Your task to perform on an android device: open wifi settings Image 0: 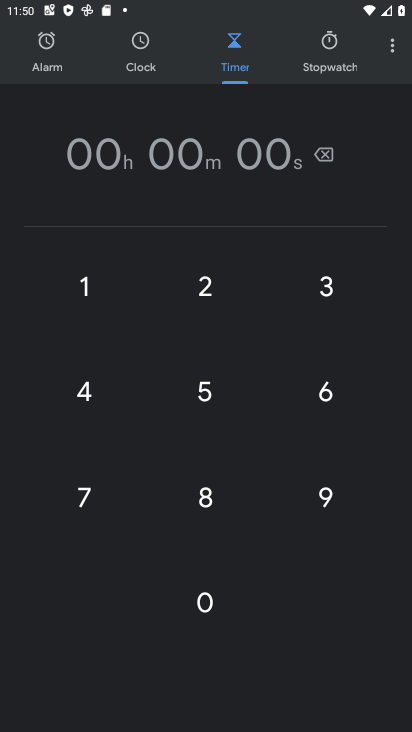
Step 0: press home button
Your task to perform on an android device: open wifi settings Image 1: 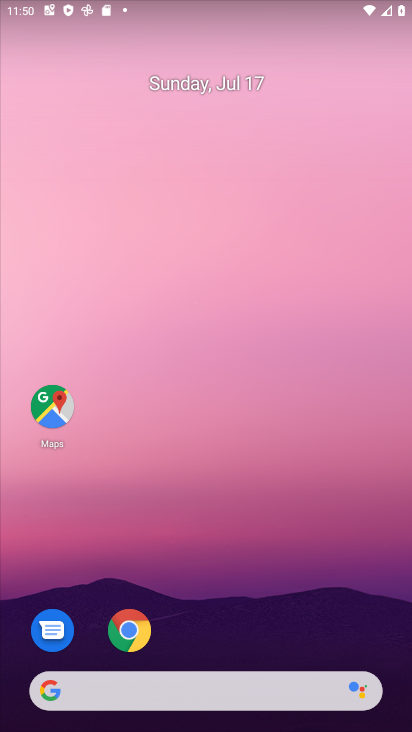
Step 1: drag from (282, 625) to (292, 14)
Your task to perform on an android device: open wifi settings Image 2: 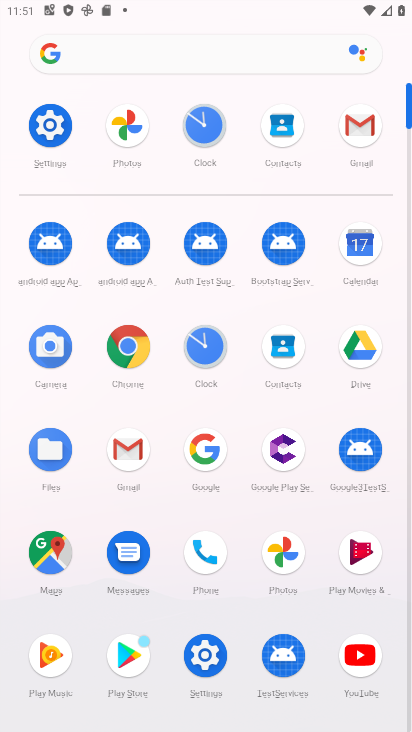
Step 2: click (41, 104)
Your task to perform on an android device: open wifi settings Image 3: 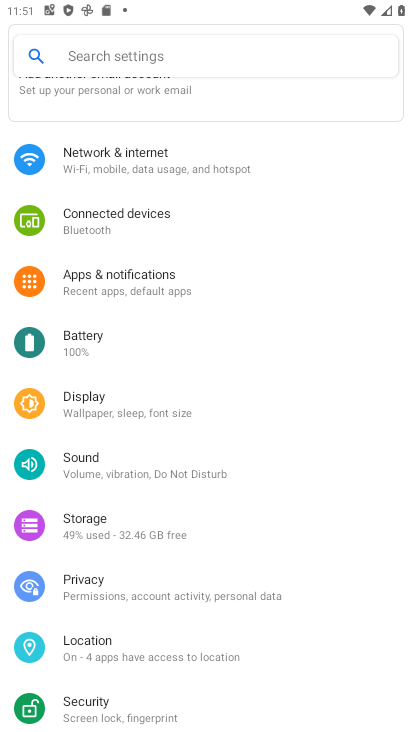
Step 3: click (187, 174)
Your task to perform on an android device: open wifi settings Image 4: 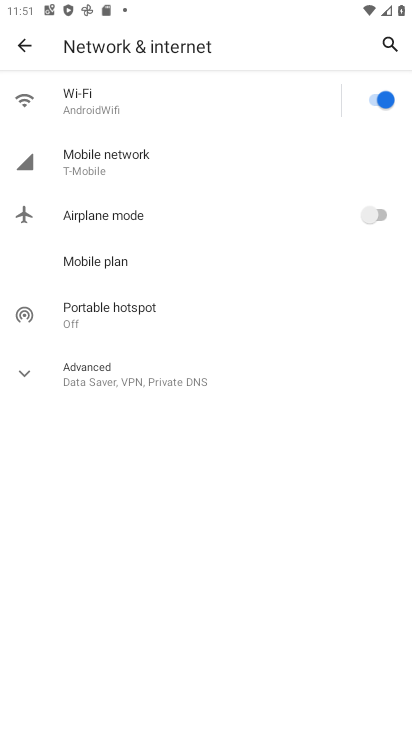
Step 4: click (134, 87)
Your task to perform on an android device: open wifi settings Image 5: 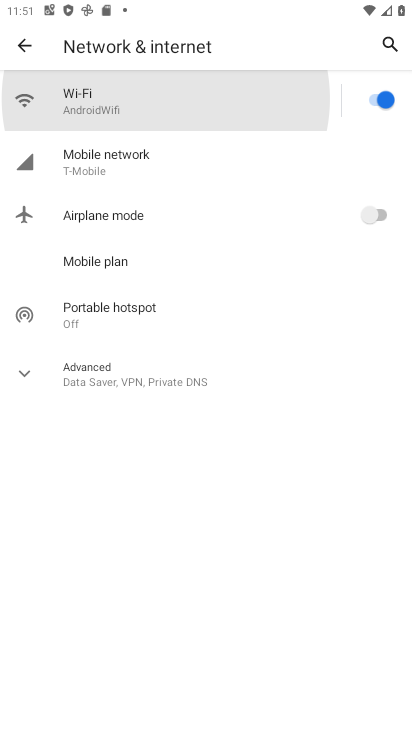
Step 5: task complete